Your task to perform on an android device: open a new tab in the chrome app Image 0: 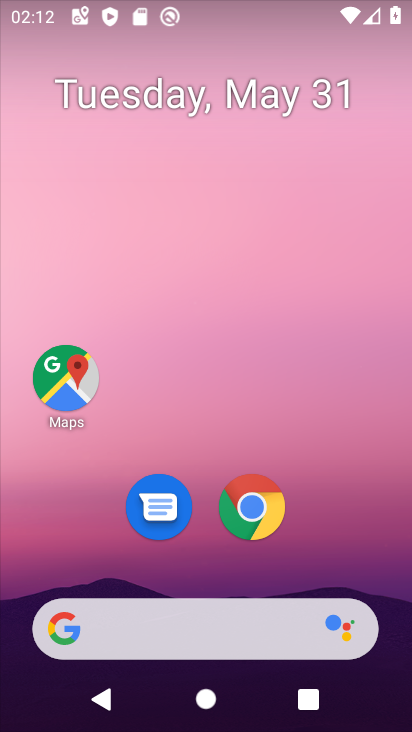
Step 0: click (247, 510)
Your task to perform on an android device: open a new tab in the chrome app Image 1: 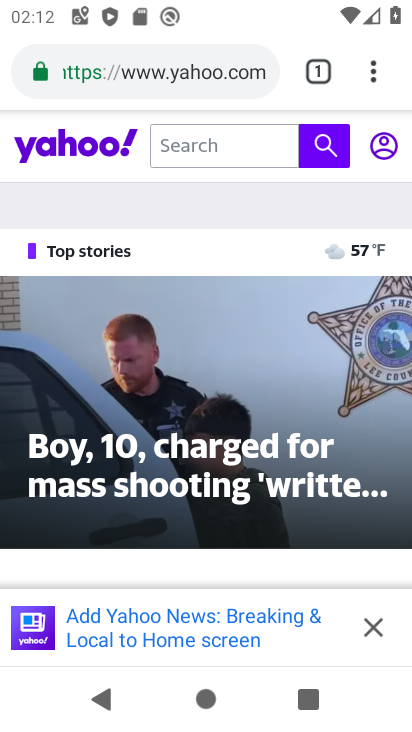
Step 1: click (384, 64)
Your task to perform on an android device: open a new tab in the chrome app Image 2: 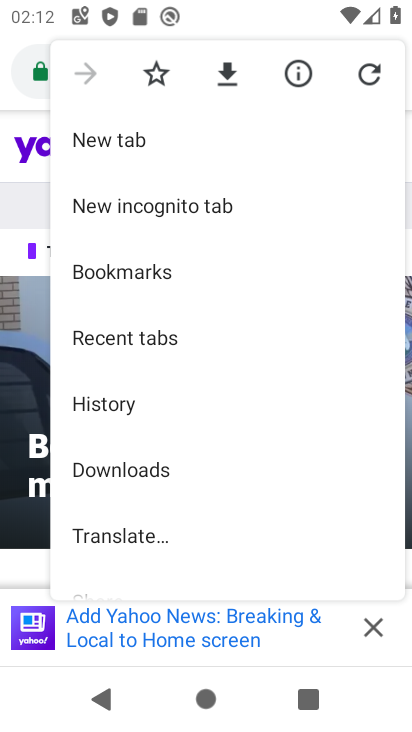
Step 2: click (90, 155)
Your task to perform on an android device: open a new tab in the chrome app Image 3: 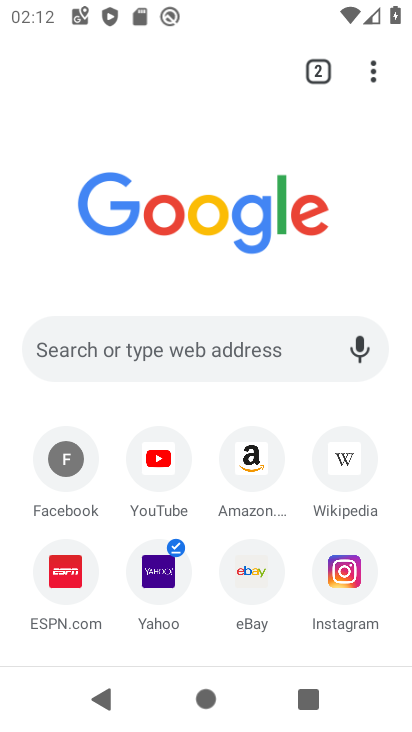
Step 3: task complete